Your task to perform on an android device: turn pop-ups off in chrome Image 0: 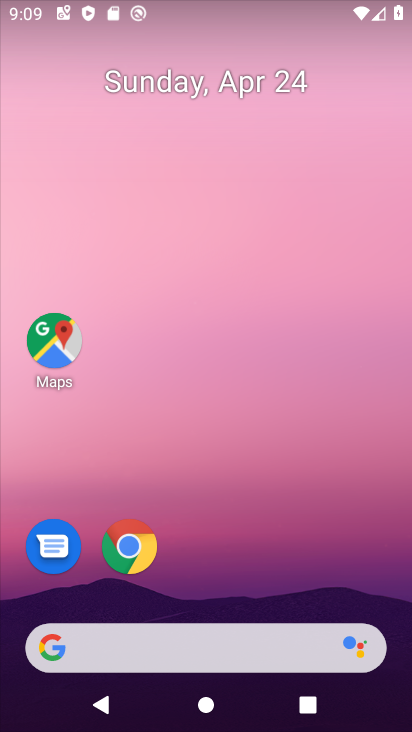
Step 0: drag from (260, 443) to (284, 215)
Your task to perform on an android device: turn pop-ups off in chrome Image 1: 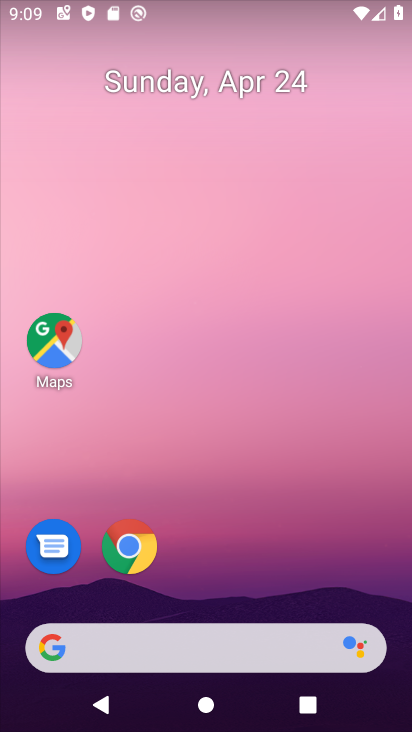
Step 1: drag from (277, 566) to (259, 212)
Your task to perform on an android device: turn pop-ups off in chrome Image 2: 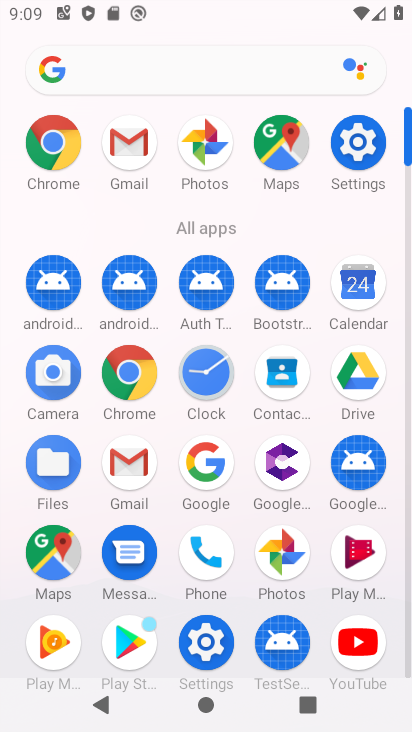
Step 2: click (129, 370)
Your task to perform on an android device: turn pop-ups off in chrome Image 3: 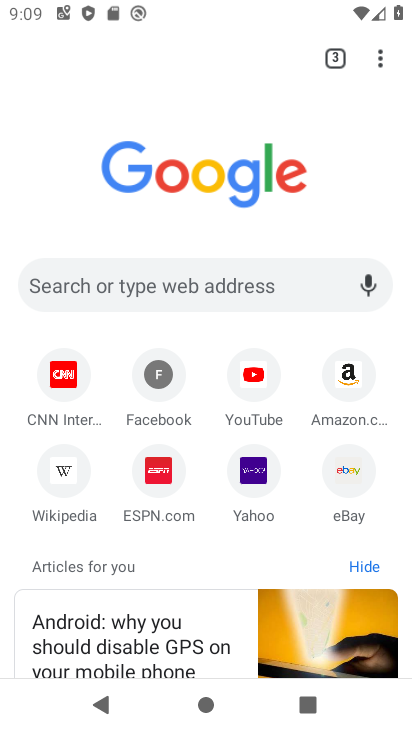
Step 3: click (371, 55)
Your task to perform on an android device: turn pop-ups off in chrome Image 4: 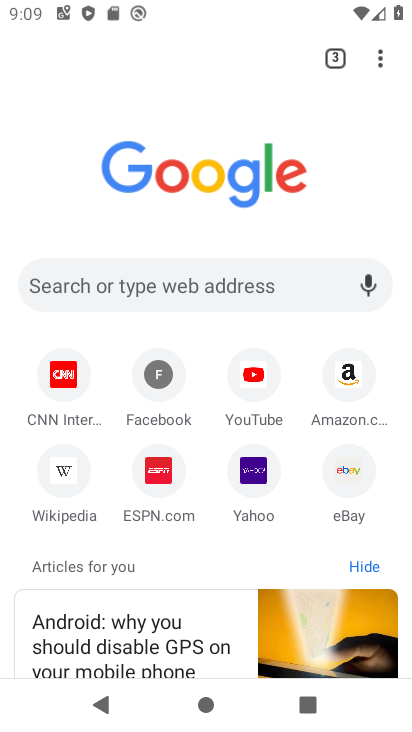
Step 4: click (371, 55)
Your task to perform on an android device: turn pop-ups off in chrome Image 5: 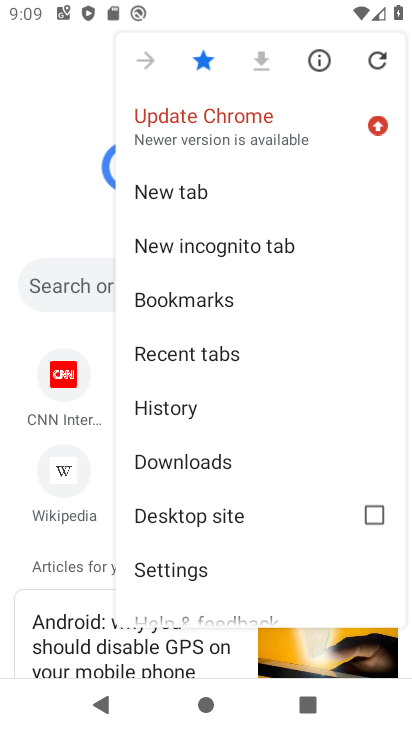
Step 5: click (210, 571)
Your task to perform on an android device: turn pop-ups off in chrome Image 6: 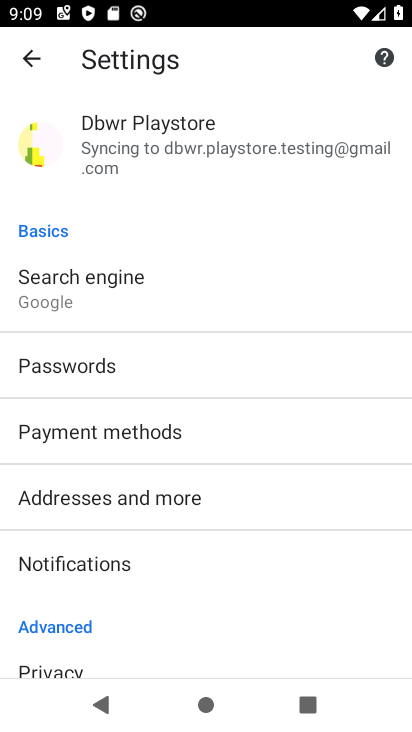
Step 6: drag from (221, 647) to (310, 168)
Your task to perform on an android device: turn pop-ups off in chrome Image 7: 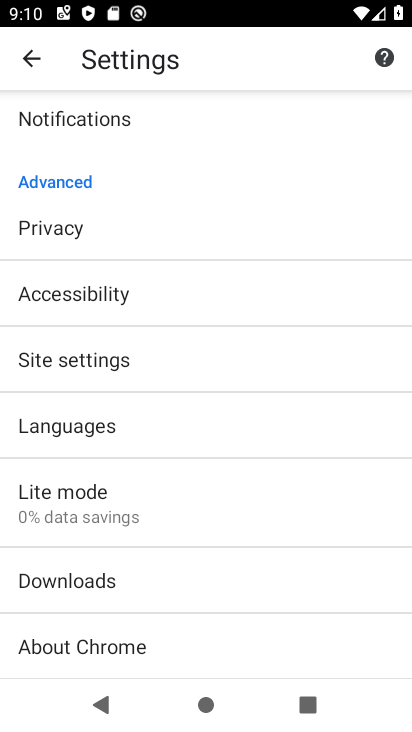
Step 7: click (149, 361)
Your task to perform on an android device: turn pop-ups off in chrome Image 8: 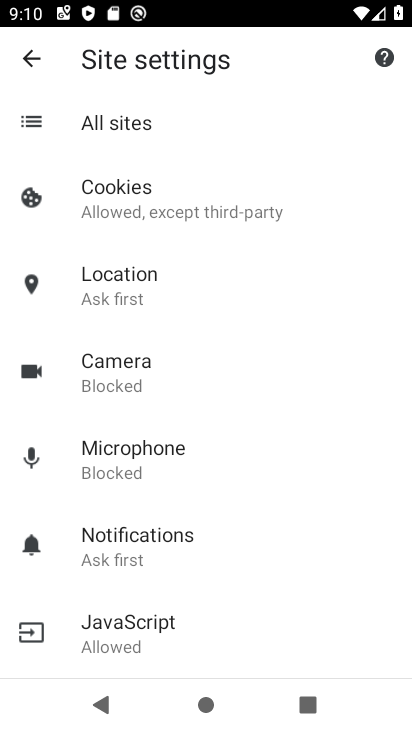
Step 8: drag from (220, 571) to (305, 144)
Your task to perform on an android device: turn pop-ups off in chrome Image 9: 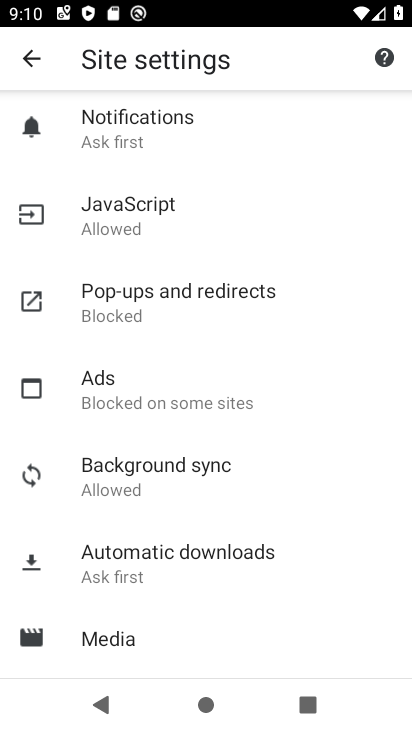
Step 9: click (210, 280)
Your task to perform on an android device: turn pop-ups off in chrome Image 10: 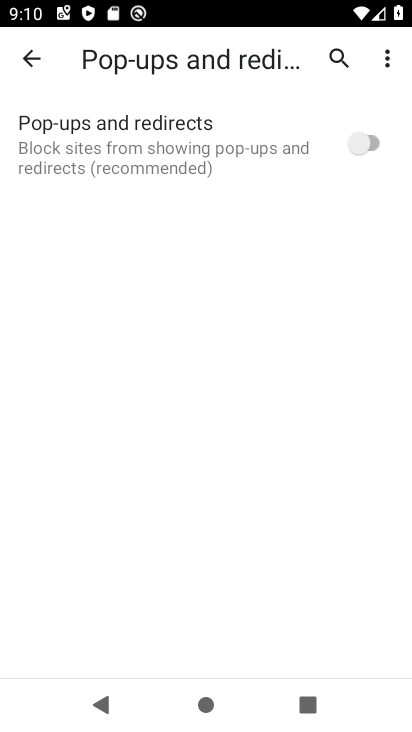
Step 10: task complete